Your task to perform on an android device: Open Google Chrome and click the shortcut for Amazon.com Image 0: 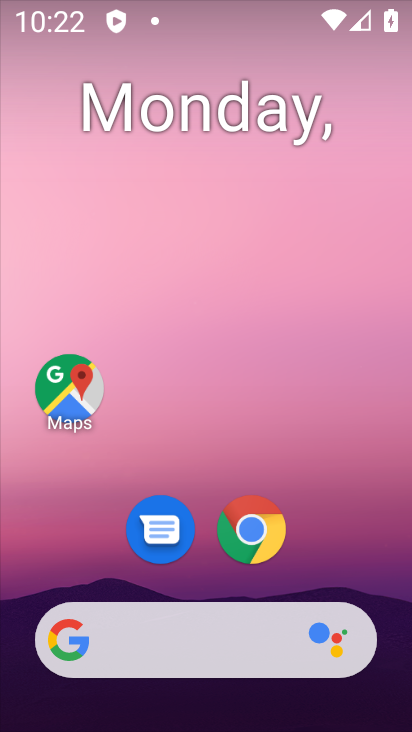
Step 0: click (255, 531)
Your task to perform on an android device: Open Google Chrome and click the shortcut for Amazon.com Image 1: 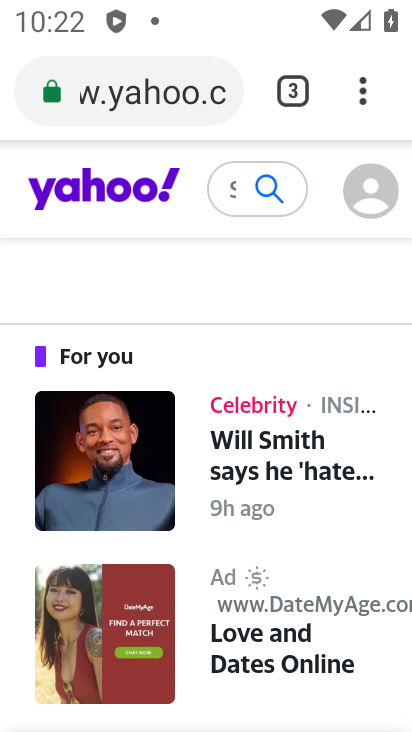
Step 1: click (361, 94)
Your task to perform on an android device: Open Google Chrome and click the shortcut for Amazon.com Image 2: 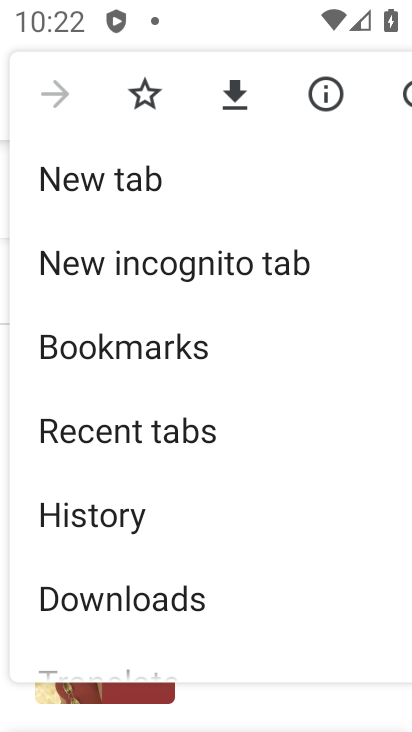
Step 2: click (145, 180)
Your task to perform on an android device: Open Google Chrome and click the shortcut for Amazon.com Image 3: 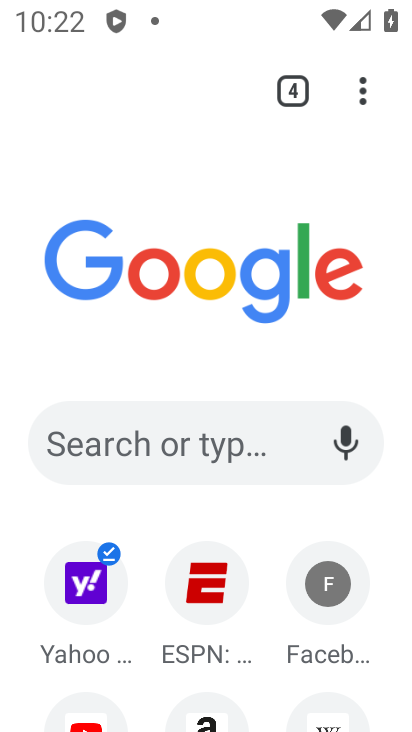
Step 3: drag from (264, 642) to (259, 389)
Your task to perform on an android device: Open Google Chrome and click the shortcut for Amazon.com Image 4: 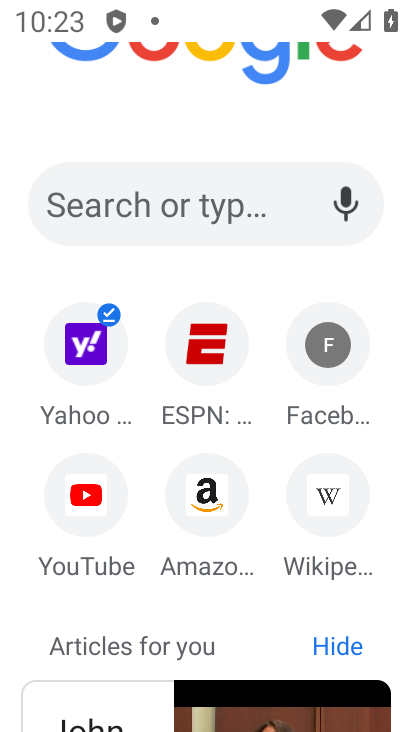
Step 4: click (210, 494)
Your task to perform on an android device: Open Google Chrome and click the shortcut for Amazon.com Image 5: 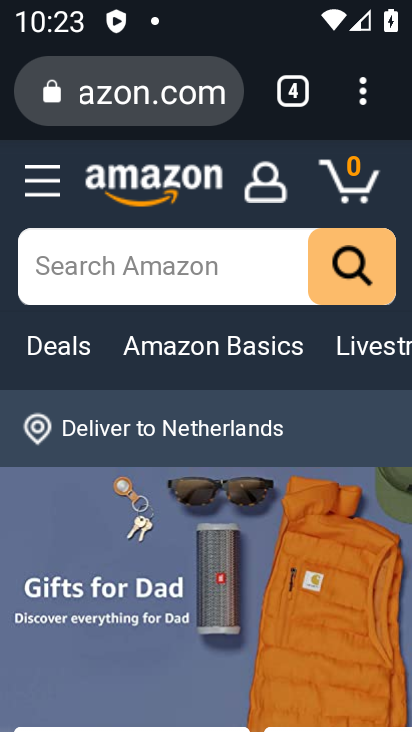
Step 5: task complete